Your task to perform on an android device: star an email in the gmail app Image 0: 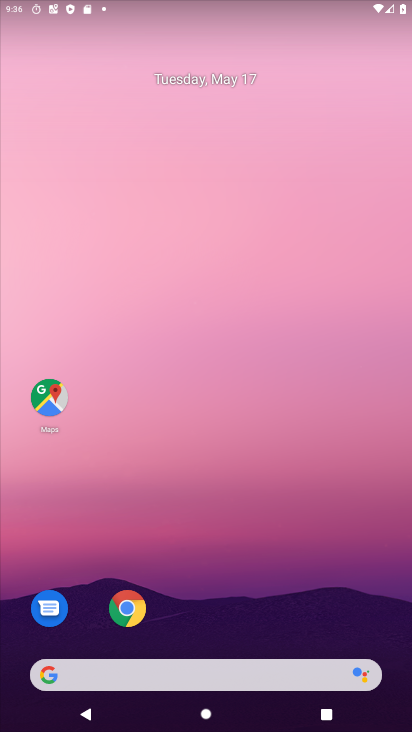
Step 0: drag from (340, 569) to (359, 239)
Your task to perform on an android device: star an email in the gmail app Image 1: 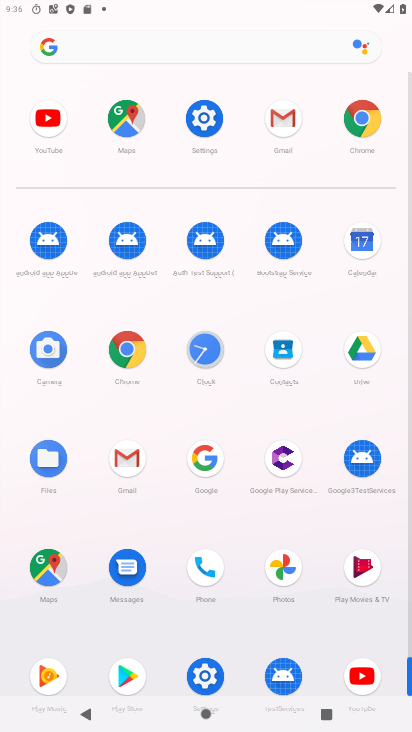
Step 1: click (133, 452)
Your task to perform on an android device: star an email in the gmail app Image 2: 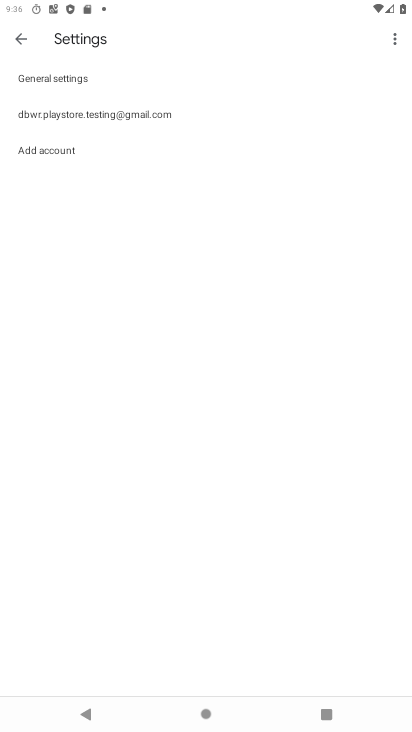
Step 2: click (138, 106)
Your task to perform on an android device: star an email in the gmail app Image 3: 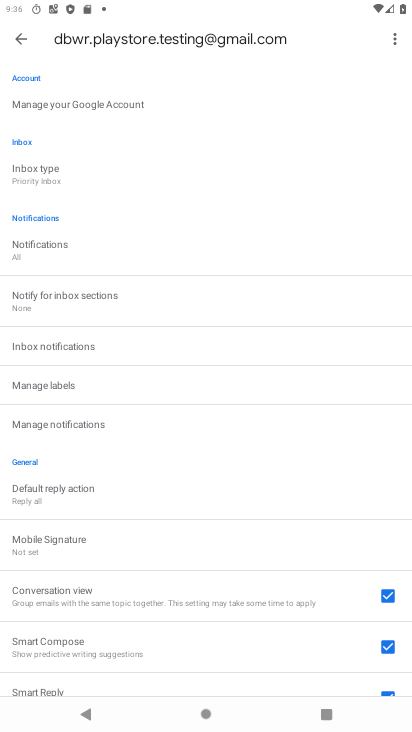
Step 3: click (21, 40)
Your task to perform on an android device: star an email in the gmail app Image 4: 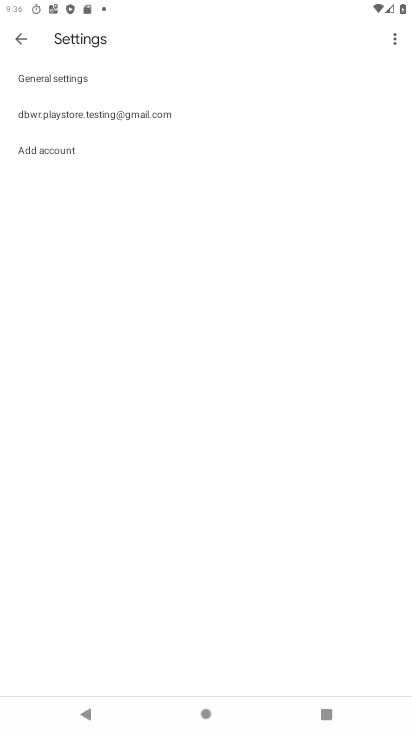
Step 4: click (27, 37)
Your task to perform on an android device: star an email in the gmail app Image 5: 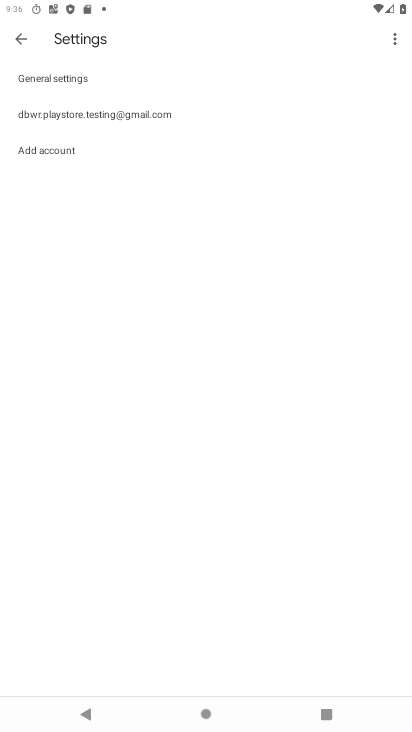
Step 5: click (25, 35)
Your task to perform on an android device: star an email in the gmail app Image 6: 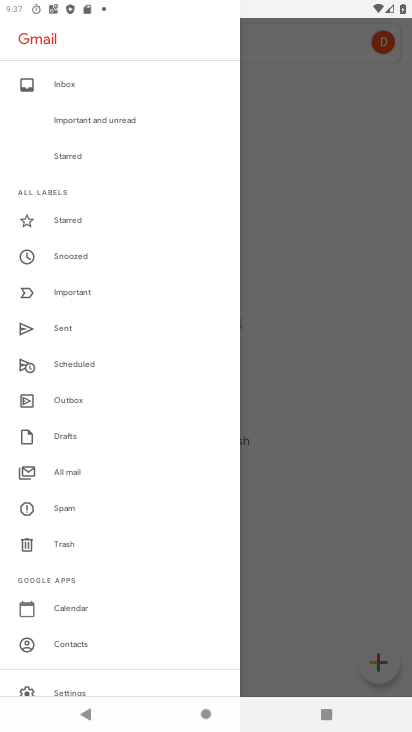
Step 6: click (103, 220)
Your task to perform on an android device: star an email in the gmail app Image 7: 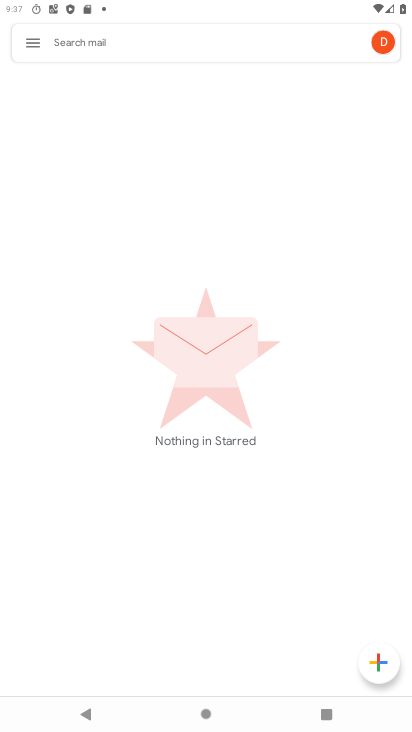
Step 7: task complete